Your task to perform on an android device: What's the latest news in space? Image 0: 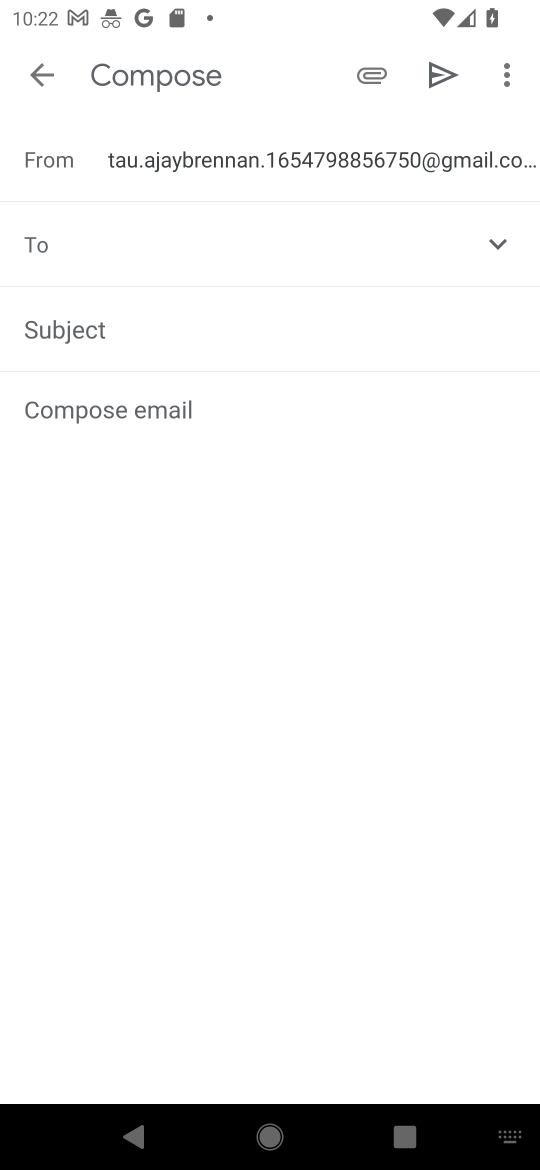
Step 0: press home button
Your task to perform on an android device: What's the latest news in space? Image 1: 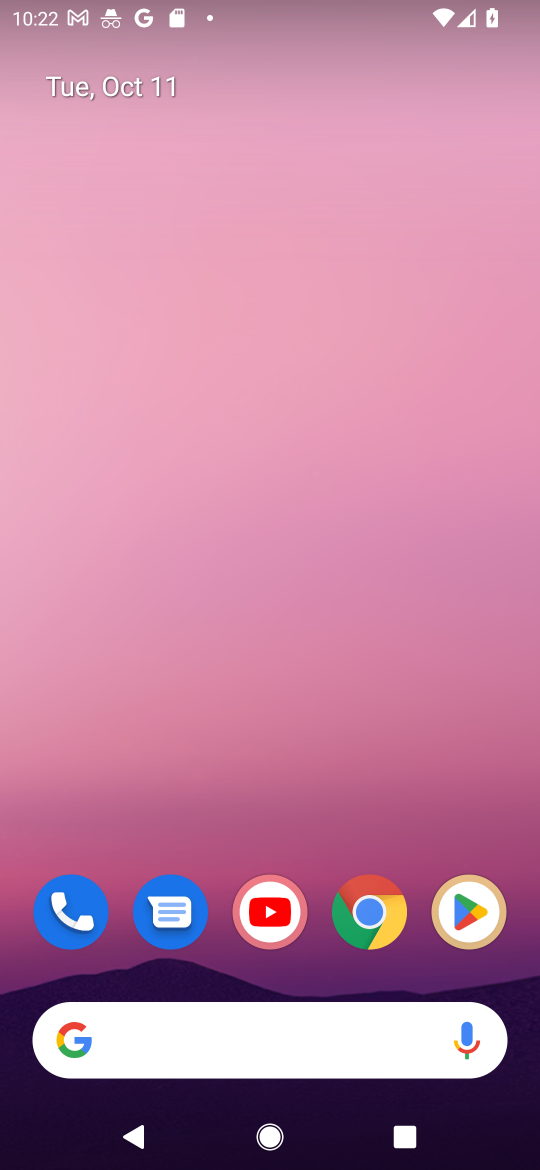
Step 1: click (374, 903)
Your task to perform on an android device: What's the latest news in space? Image 2: 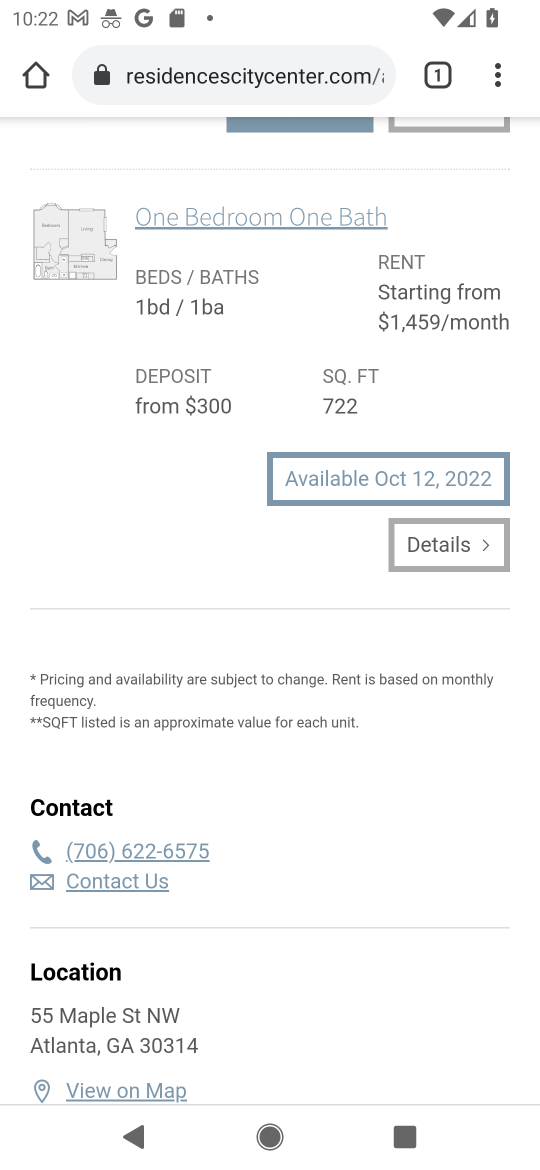
Step 2: click (198, 50)
Your task to perform on an android device: What's the latest news in space? Image 3: 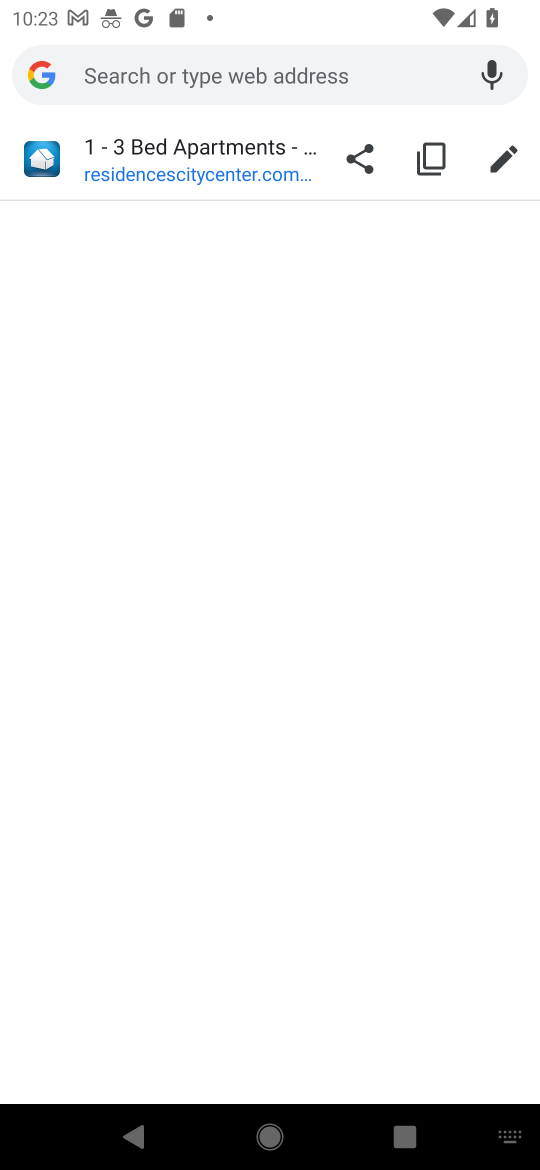
Step 3: type " latest news in space"
Your task to perform on an android device: What's the latest news in space? Image 4: 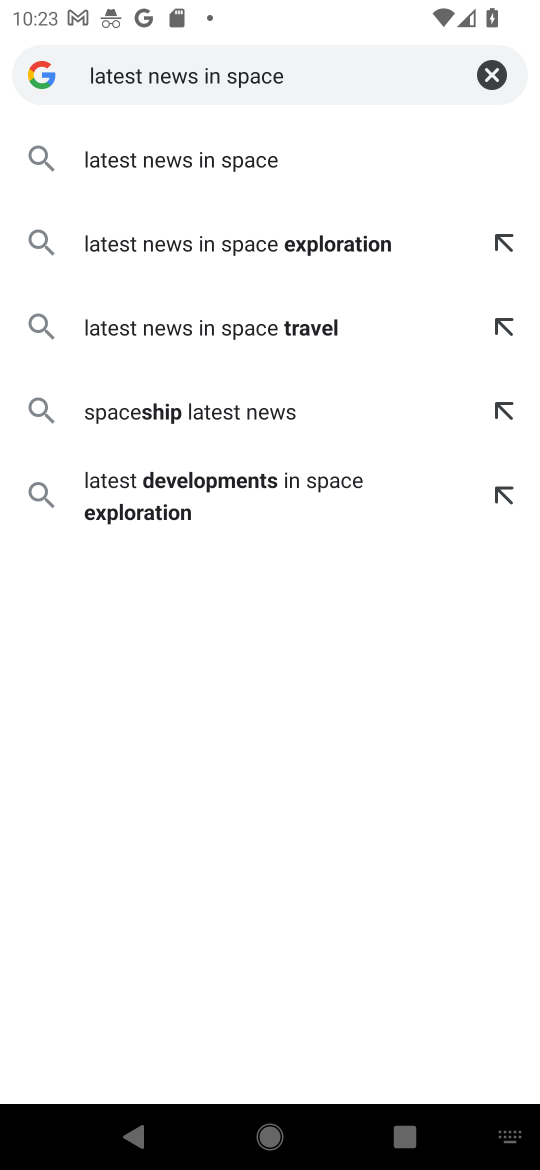
Step 4: click (166, 157)
Your task to perform on an android device: What's the latest news in space? Image 5: 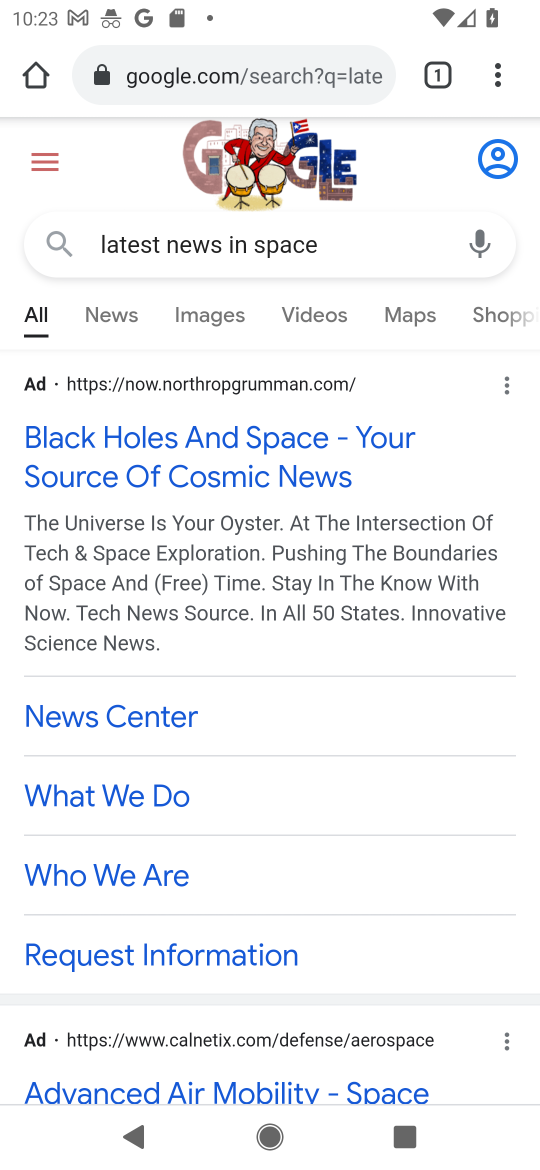
Step 5: drag from (292, 991) to (323, 204)
Your task to perform on an android device: What's the latest news in space? Image 6: 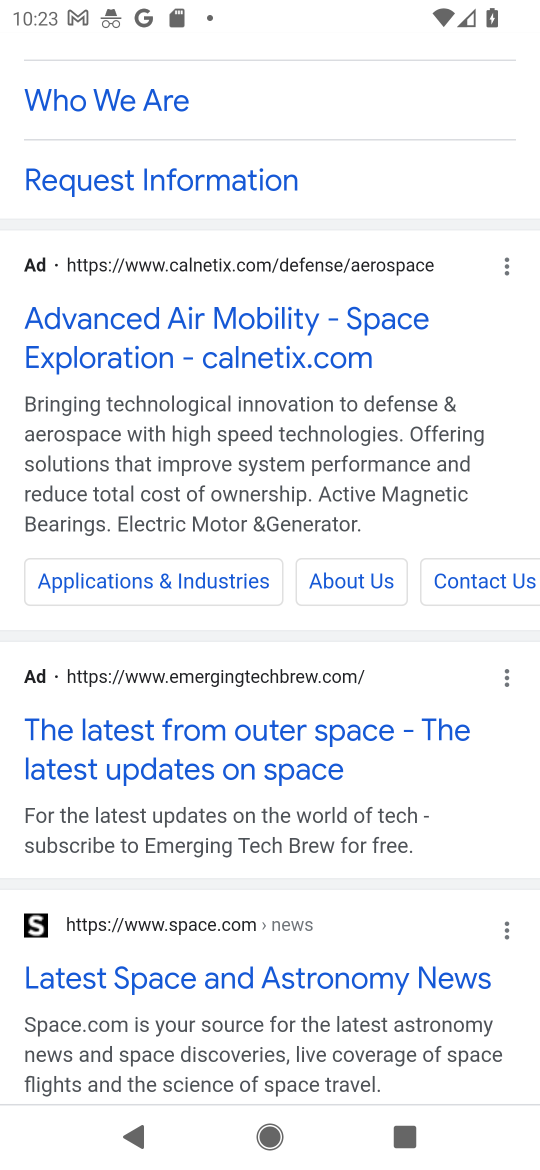
Step 6: drag from (297, 635) to (326, 265)
Your task to perform on an android device: What's the latest news in space? Image 7: 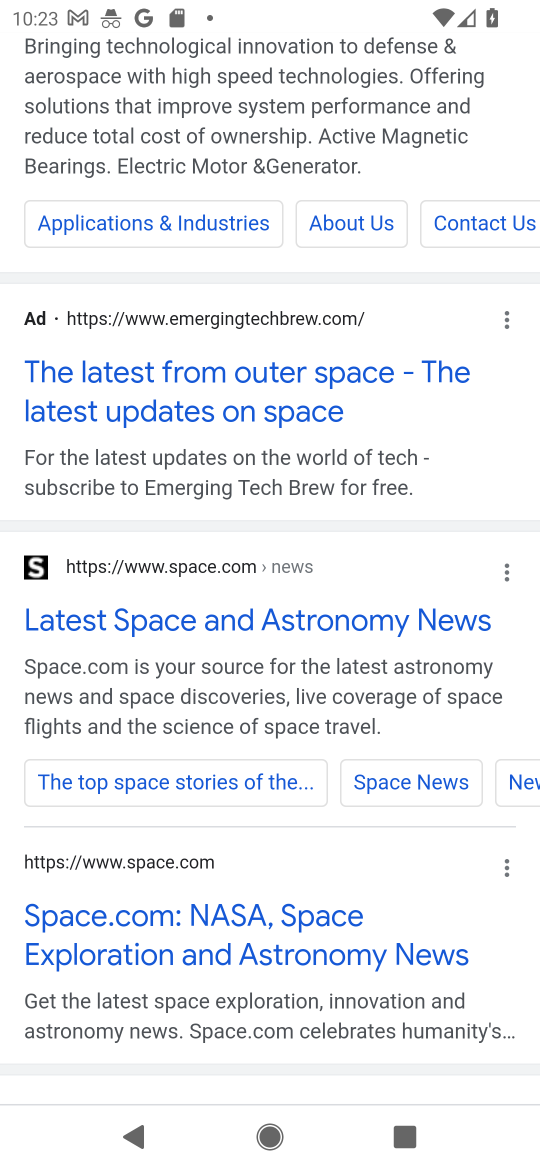
Step 7: click (127, 394)
Your task to perform on an android device: What's the latest news in space? Image 8: 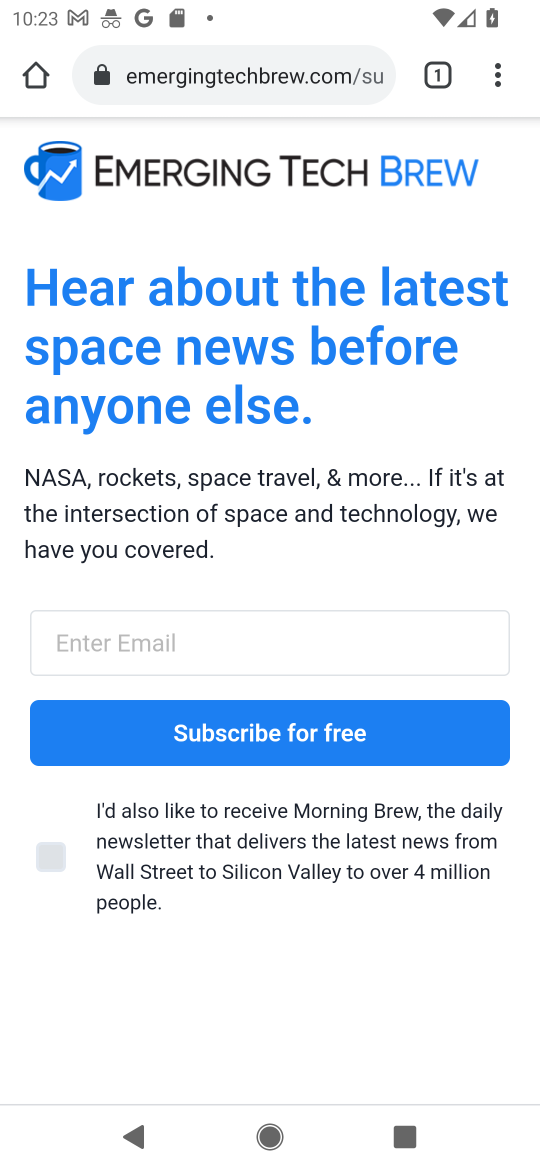
Step 8: press back button
Your task to perform on an android device: What's the latest news in space? Image 9: 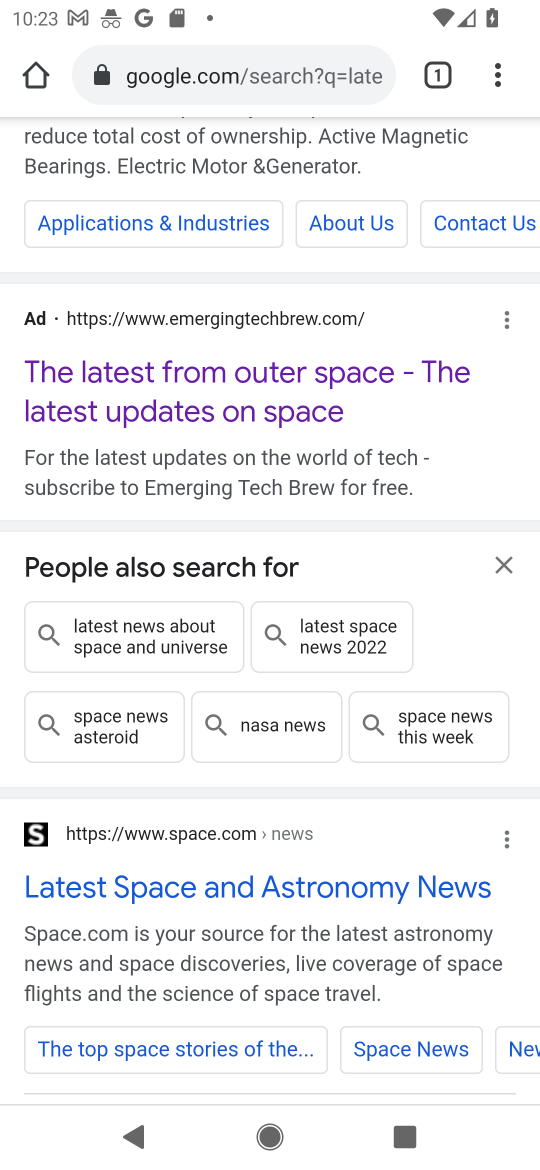
Step 9: drag from (372, 787) to (342, 223)
Your task to perform on an android device: What's the latest news in space? Image 10: 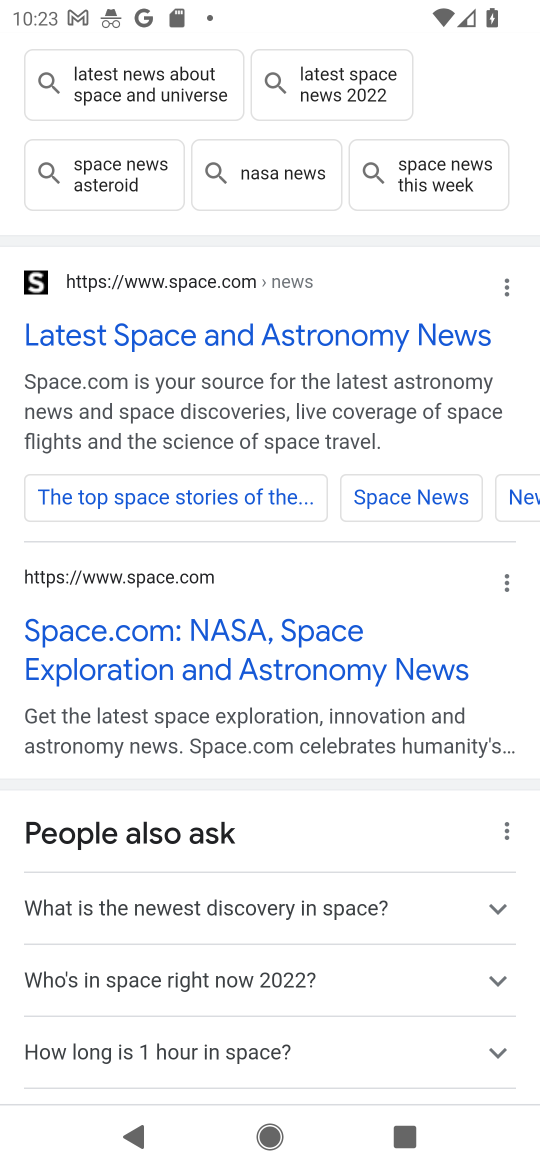
Step 10: click (152, 348)
Your task to perform on an android device: What's the latest news in space? Image 11: 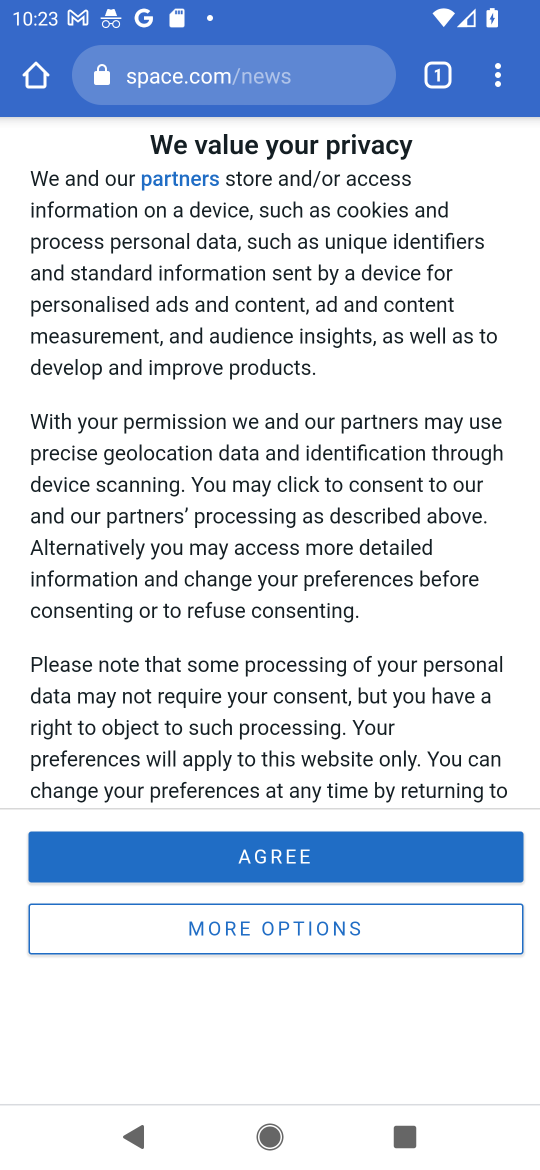
Step 11: click (277, 844)
Your task to perform on an android device: What's the latest news in space? Image 12: 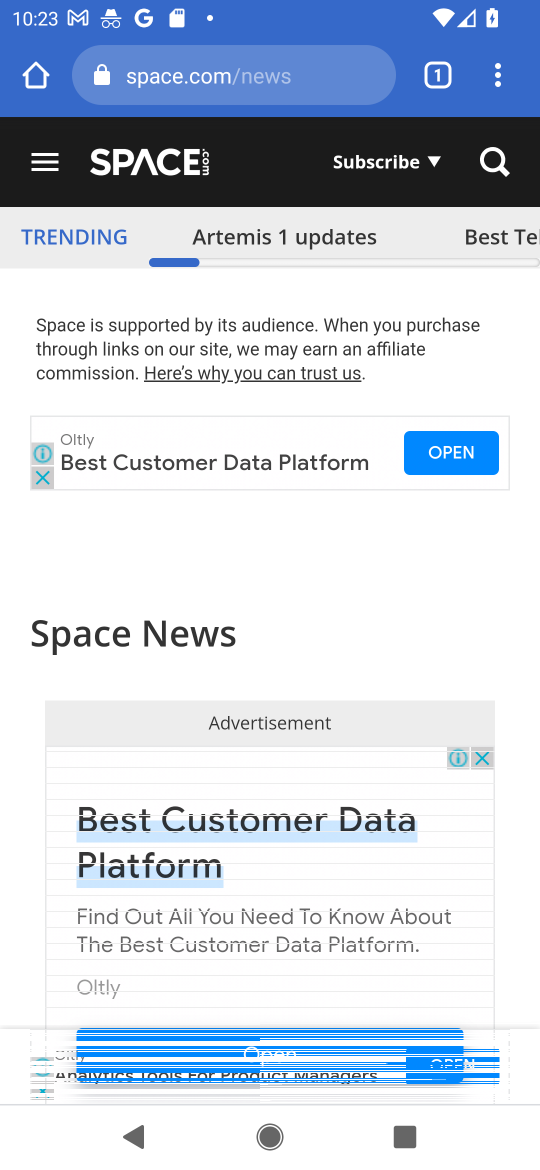
Step 12: drag from (255, 656) to (275, 199)
Your task to perform on an android device: What's the latest news in space? Image 13: 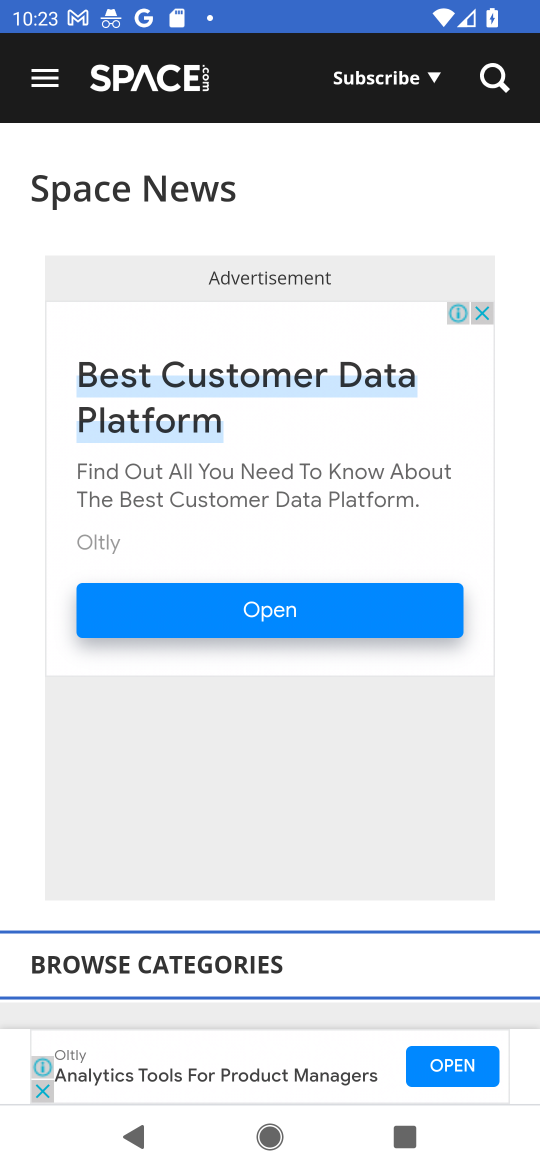
Step 13: drag from (341, 928) to (305, 270)
Your task to perform on an android device: What's the latest news in space? Image 14: 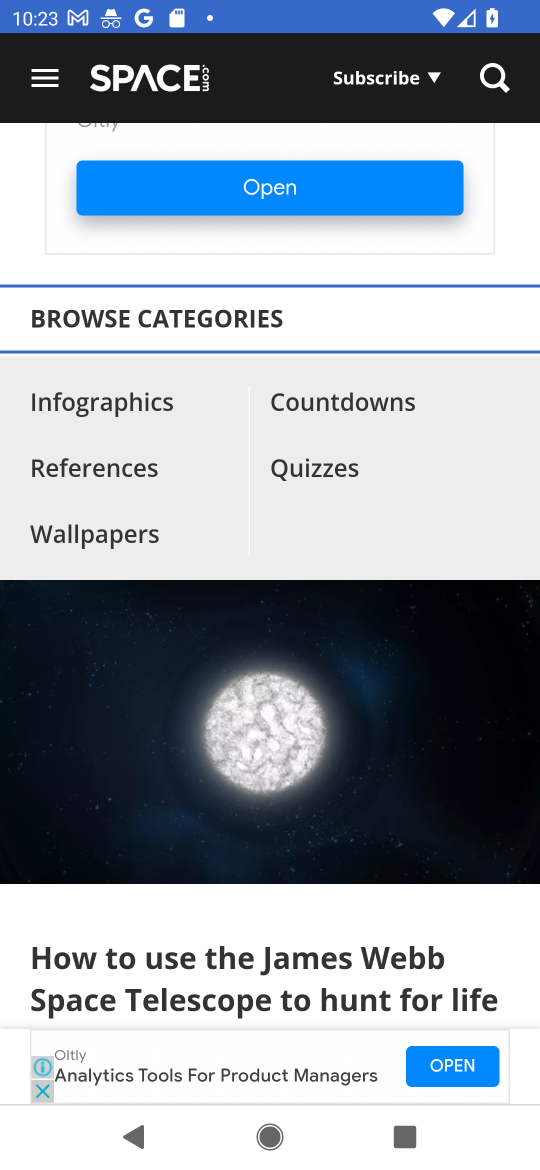
Step 14: drag from (319, 895) to (274, 279)
Your task to perform on an android device: What's the latest news in space? Image 15: 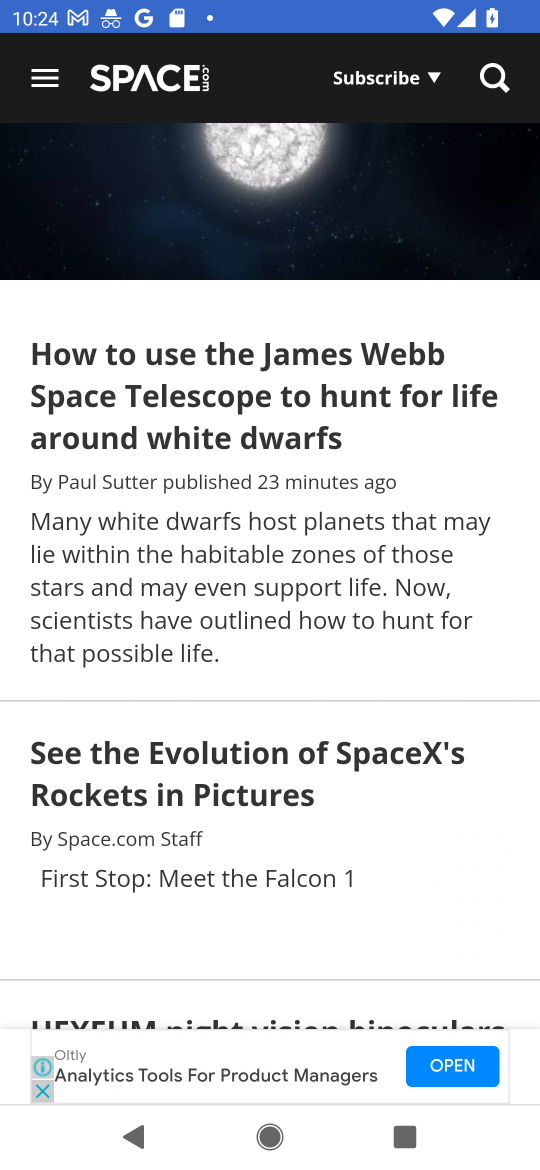
Step 15: click (223, 365)
Your task to perform on an android device: What's the latest news in space? Image 16: 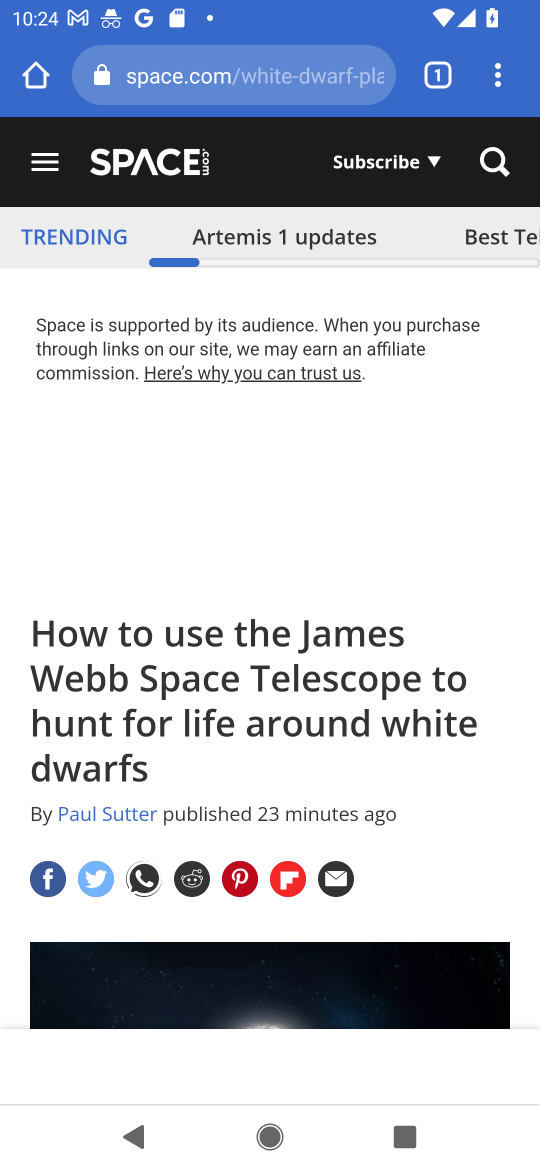
Step 16: task complete